Your task to perform on an android device: Is it going to rain this weekend? Image 0: 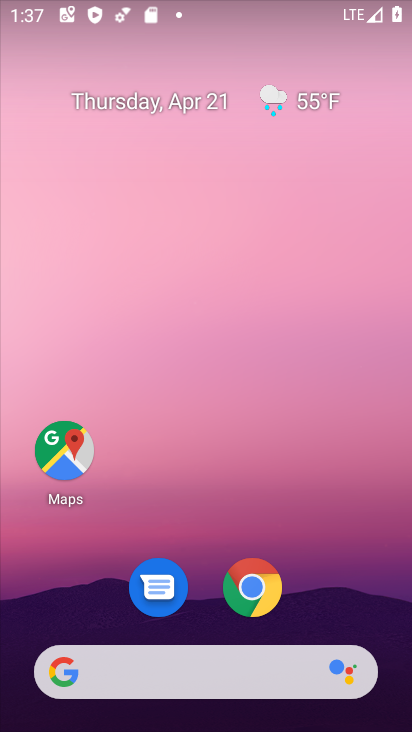
Step 0: click (296, 106)
Your task to perform on an android device: Is it going to rain this weekend? Image 1: 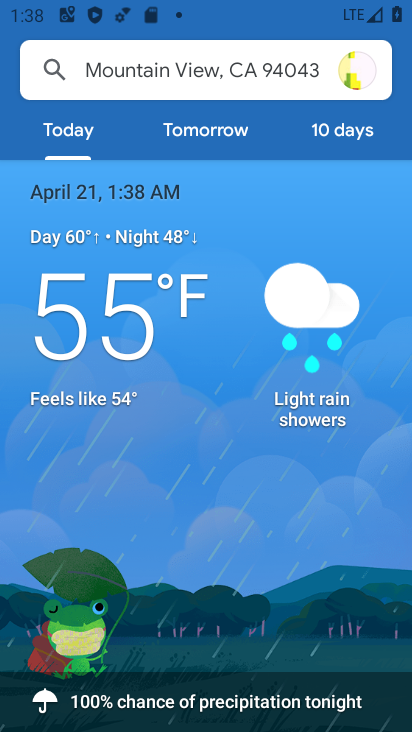
Step 1: click (338, 131)
Your task to perform on an android device: Is it going to rain this weekend? Image 2: 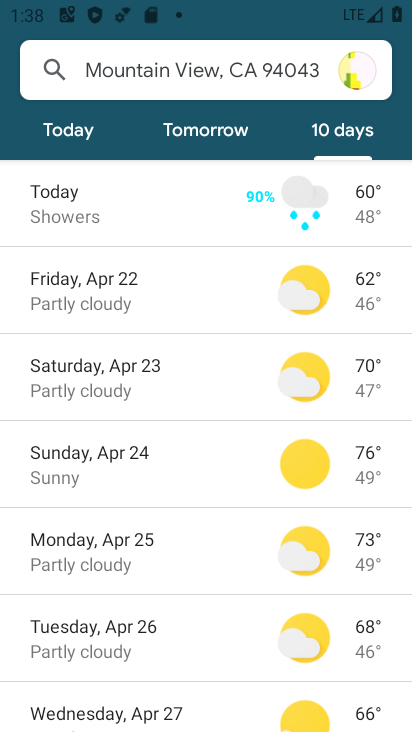
Step 2: task complete